Your task to perform on an android device: turn on javascript in the chrome app Image 0: 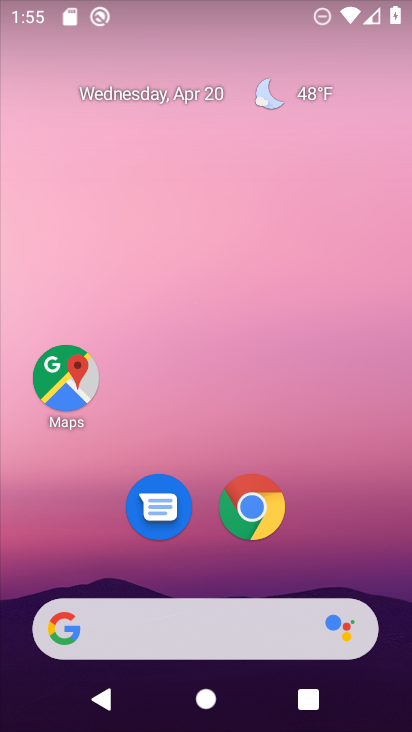
Step 0: click (253, 507)
Your task to perform on an android device: turn on javascript in the chrome app Image 1: 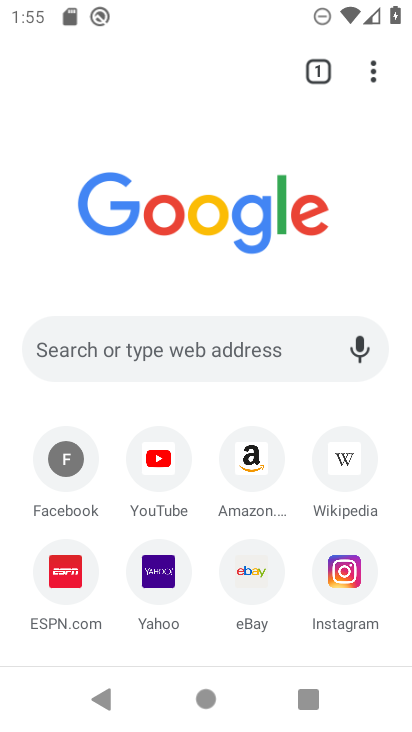
Step 1: click (375, 78)
Your task to perform on an android device: turn on javascript in the chrome app Image 2: 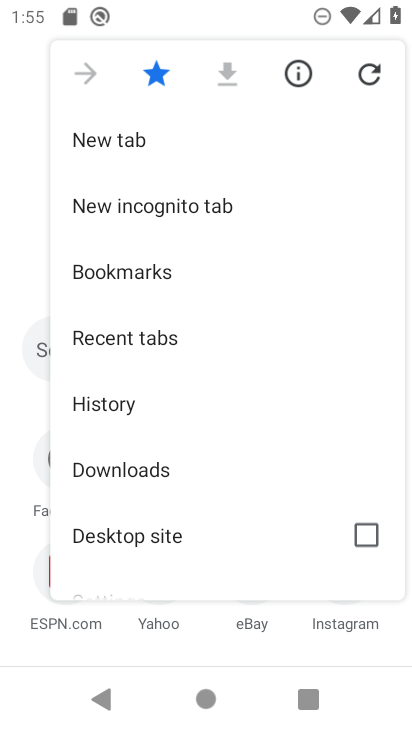
Step 2: drag from (148, 520) to (148, 220)
Your task to perform on an android device: turn on javascript in the chrome app Image 3: 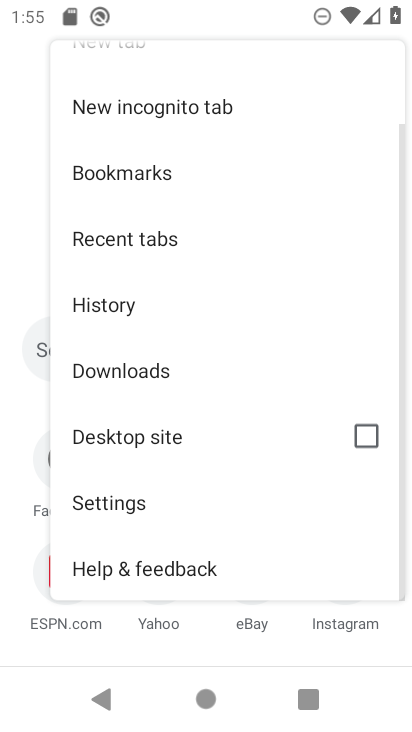
Step 3: click (128, 499)
Your task to perform on an android device: turn on javascript in the chrome app Image 4: 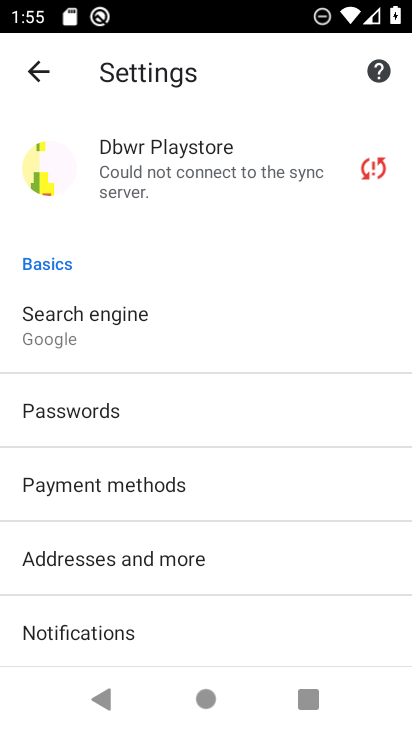
Step 4: drag from (121, 617) to (135, 241)
Your task to perform on an android device: turn on javascript in the chrome app Image 5: 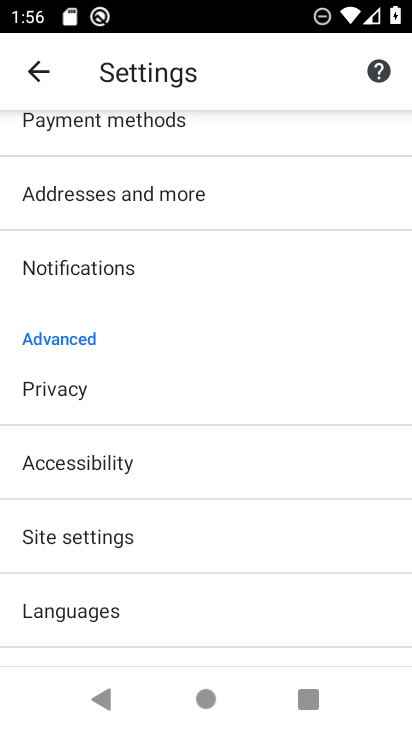
Step 5: click (111, 531)
Your task to perform on an android device: turn on javascript in the chrome app Image 6: 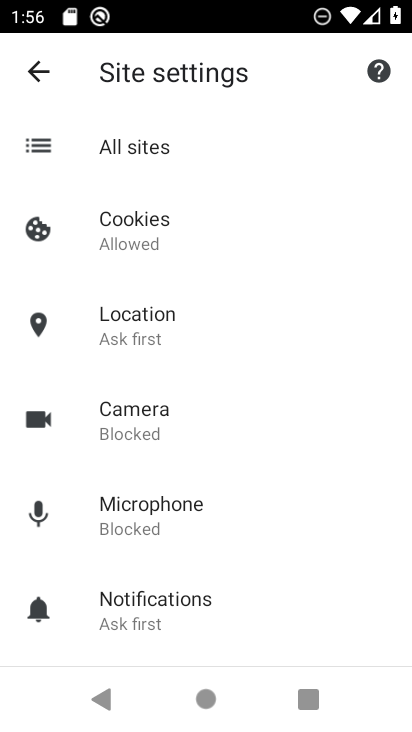
Step 6: drag from (229, 632) to (233, 218)
Your task to perform on an android device: turn on javascript in the chrome app Image 7: 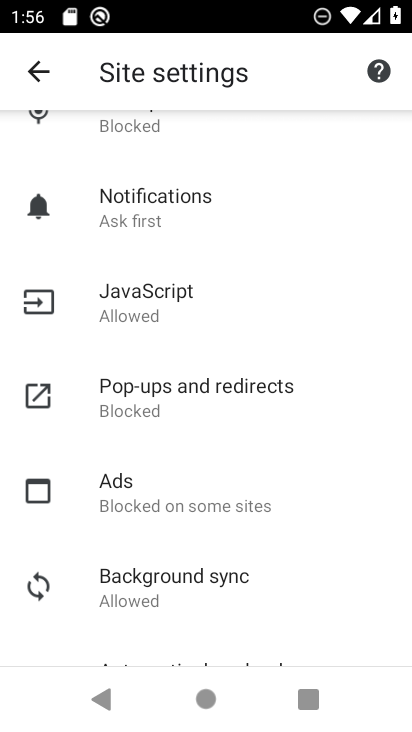
Step 7: click (137, 301)
Your task to perform on an android device: turn on javascript in the chrome app Image 8: 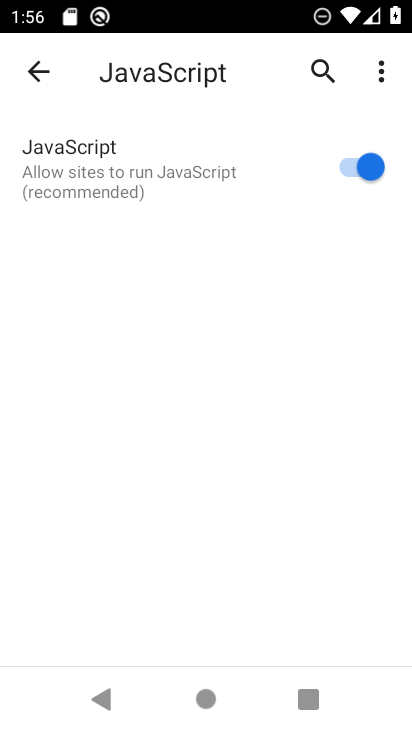
Step 8: task complete